Your task to perform on an android device: change the clock display to analog Image 0: 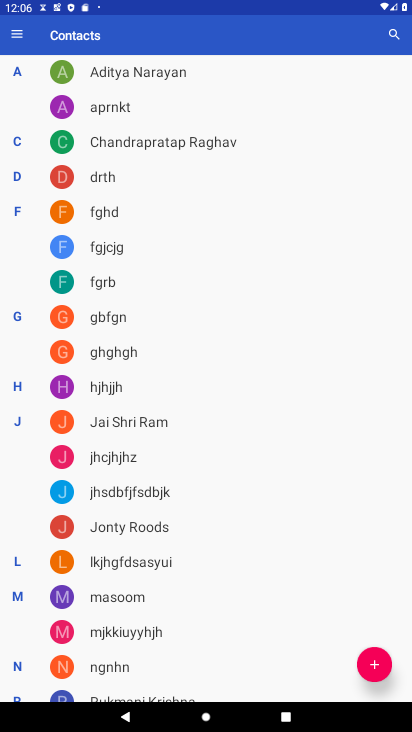
Step 0: press back button
Your task to perform on an android device: change the clock display to analog Image 1: 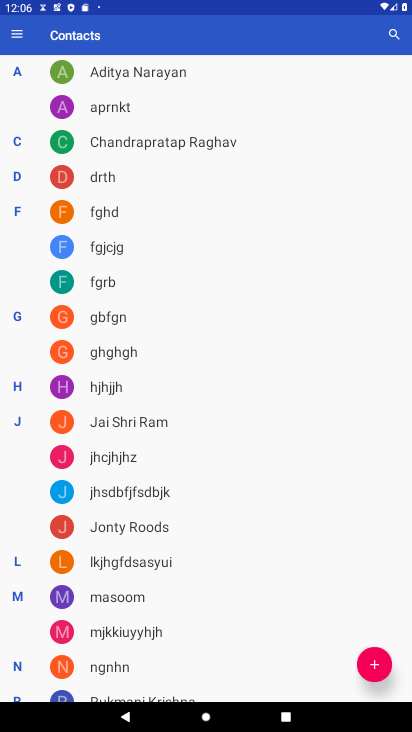
Step 1: press back button
Your task to perform on an android device: change the clock display to analog Image 2: 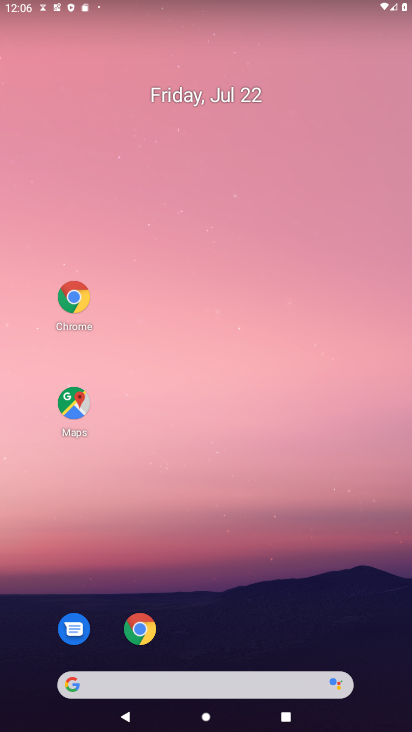
Step 2: drag from (245, 441) to (189, 140)
Your task to perform on an android device: change the clock display to analog Image 3: 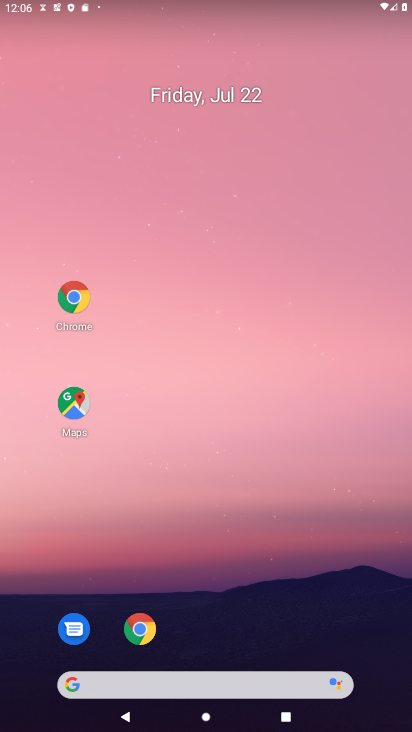
Step 3: drag from (266, 565) to (185, 109)
Your task to perform on an android device: change the clock display to analog Image 4: 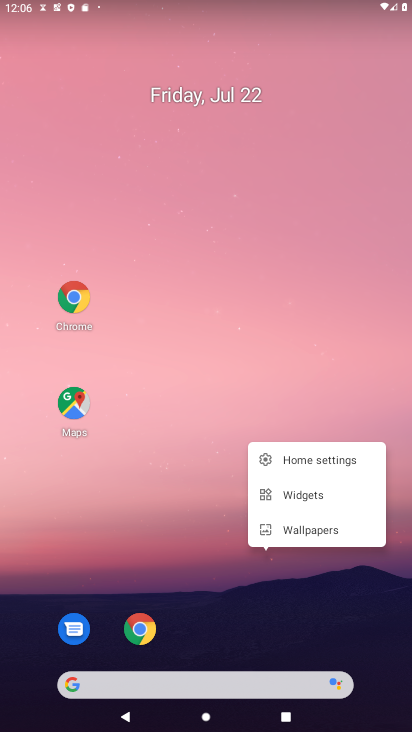
Step 4: click (202, 137)
Your task to perform on an android device: change the clock display to analog Image 5: 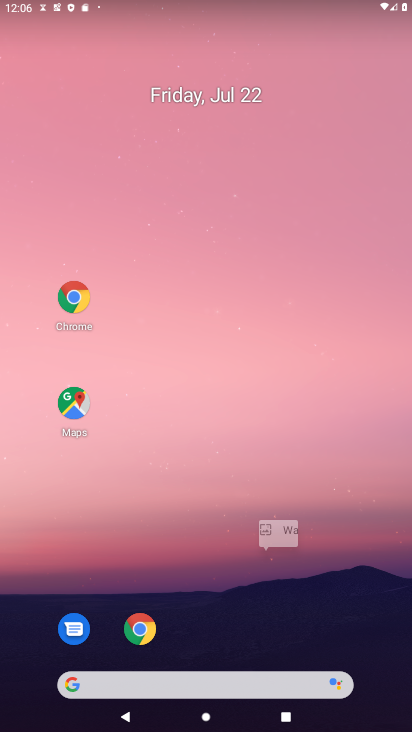
Step 5: drag from (200, 131) to (219, 448)
Your task to perform on an android device: change the clock display to analog Image 6: 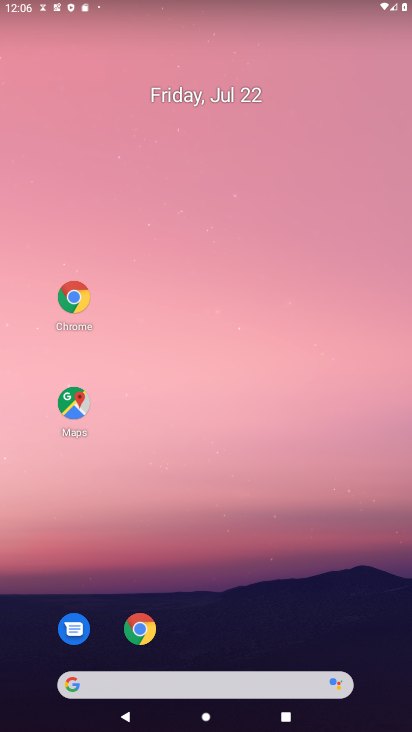
Step 6: drag from (232, 557) to (156, 108)
Your task to perform on an android device: change the clock display to analog Image 7: 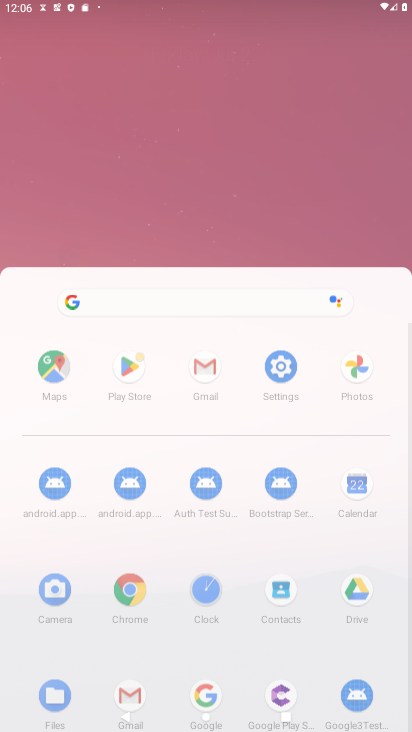
Step 7: drag from (181, 521) to (181, 170)
Your task to perform on an android device: change the clock display to analog Image 8: 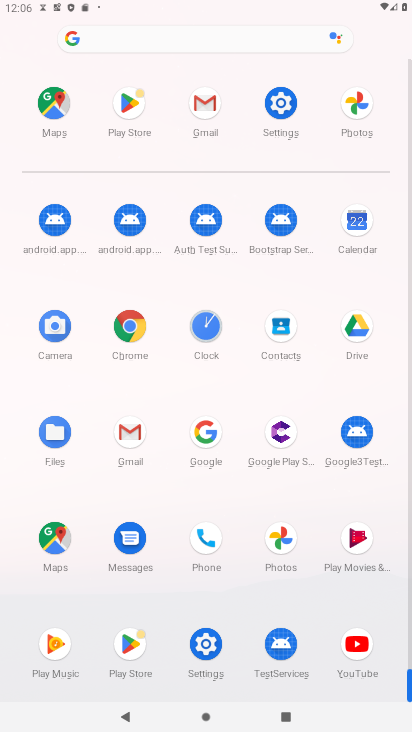
Step 8: drag from (219, 506) to (219, 142)
Your task to perform on an android device: change the clock display to analog Image 9: 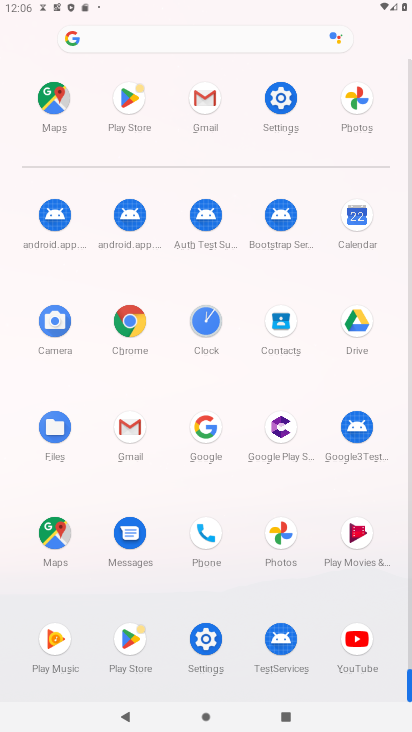
Step 9: click (280, 92)
Your task to perform on an android device: change the clock display to analog Image 10: 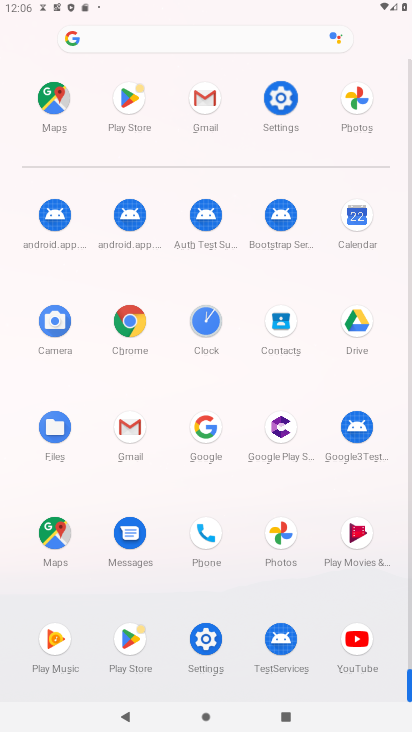
Step 10: click (280, 93)
Your task to perform on an android device: change the clock display to analog Image 11: 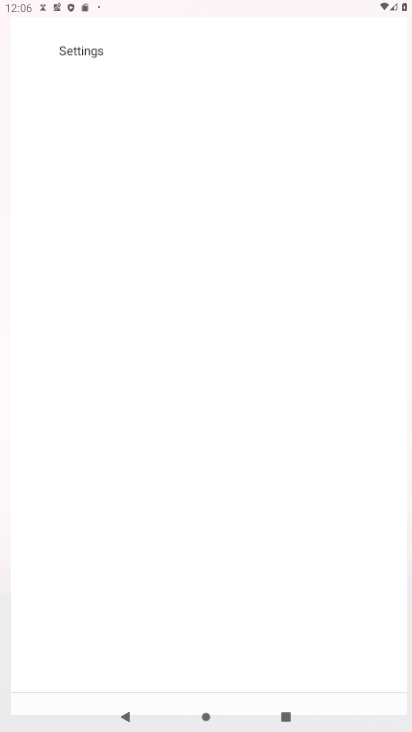
Step 11: click (281, 94)
Your task to perform on an android device: change the clock display to analog Image 12: 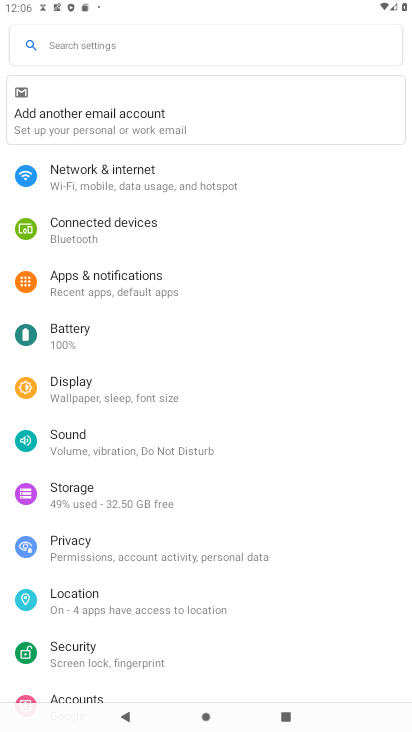
Step 12: press back button
Your task to perform on an android device: change the clock display to analog Image 13: 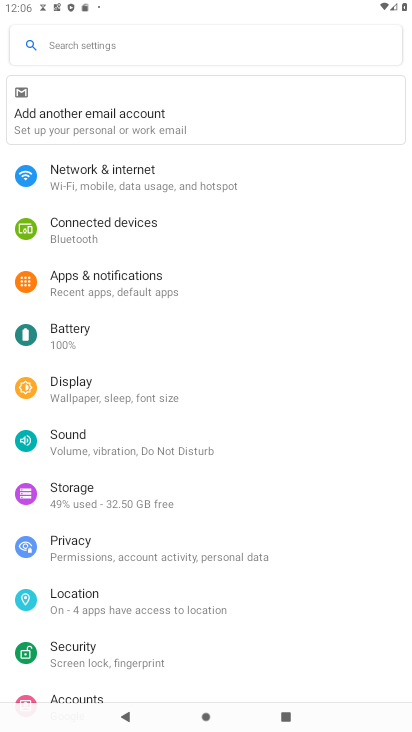
Step 13: press back button
Your task to perform on an android device: change the clock display to analog Image 14: 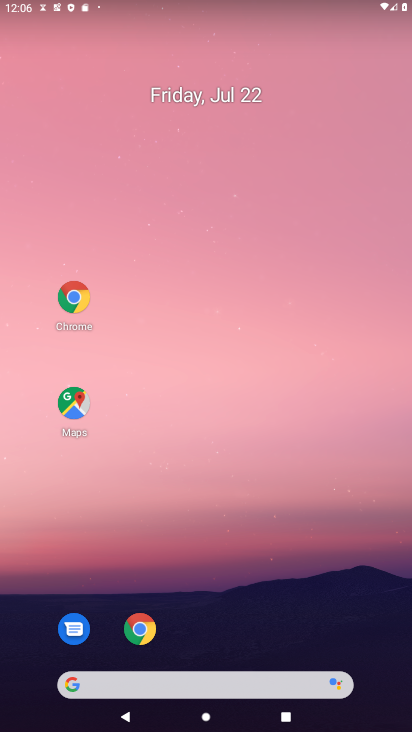
Step 14: drag from (223, 620) to (142, 169)
Your task to perform on an android device: change the clock display to analog Image 15: 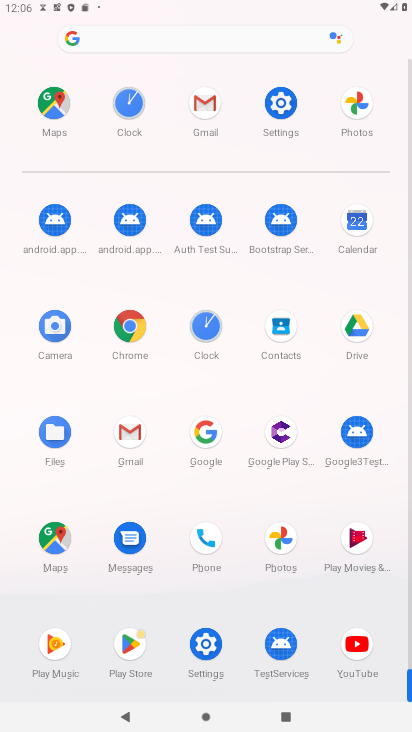
Step 15: click (209, 329)
Your task to perform on an android device: change the clock display to analog Image 16: 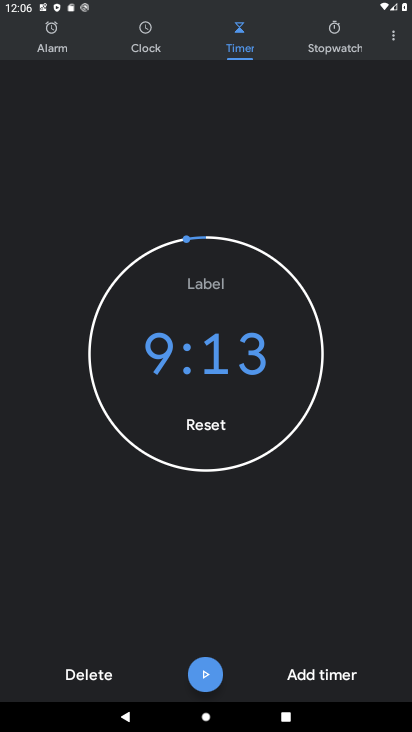
Step 16: click (204, 326)
Your task to perform on an android device: change the clock display to analog Image 17: 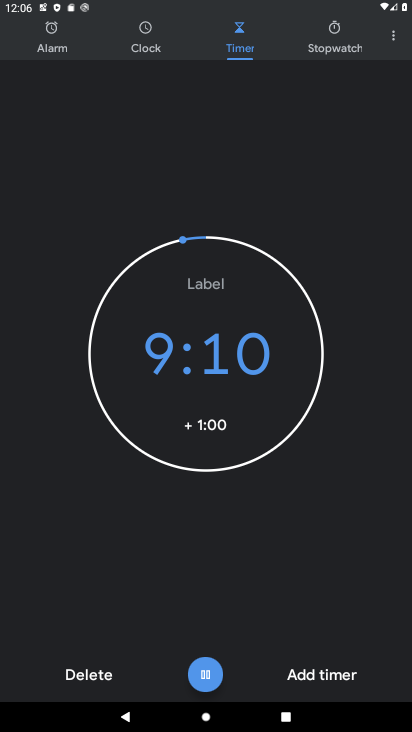
Step 17: click (392, 37)
Your task to perform on an android device: change the clock display to analog Image 18: 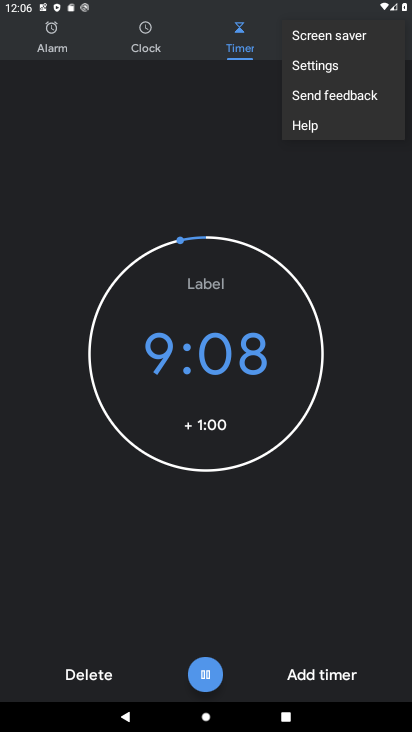
Step 18: click (331, 71)
Your task to perform on an android device: change the clock display to analog Image 19: 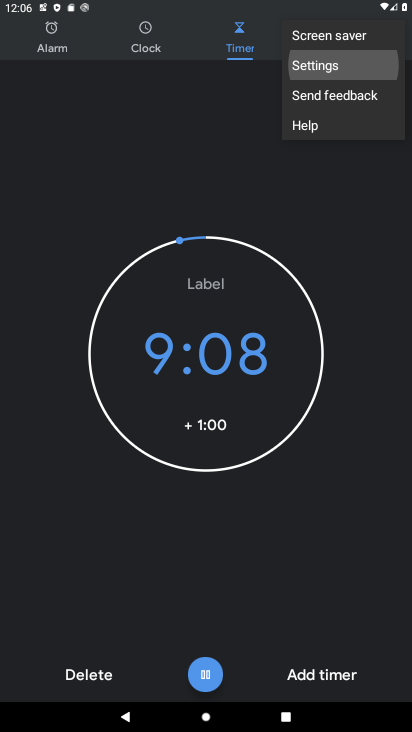
Step 19: click (330, 72)
Your task to perform on an android device: change the clock display to analog Image 20: 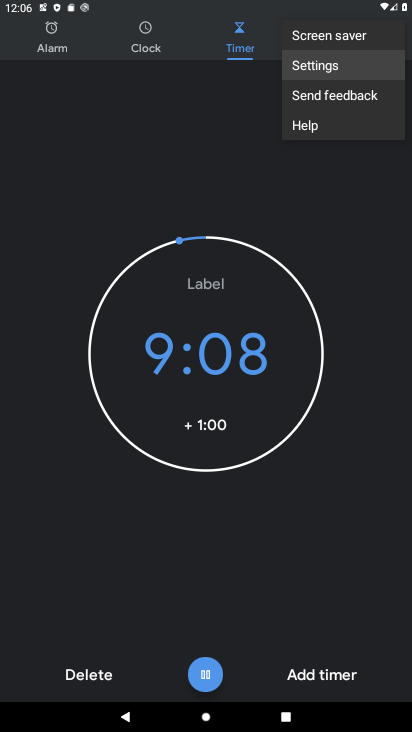
Step 20: click (330, 72)
Your task to perform on an android device: change the clock display to analog Image 21: 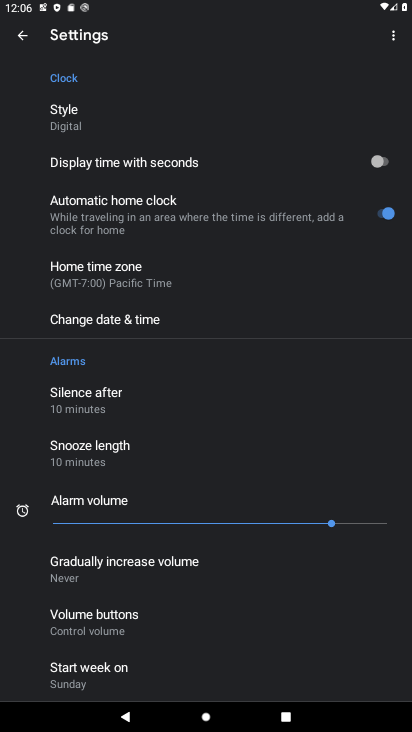
Step 21: click (96, 114)
Your task to perform on an android device: change the clock display to analog Image 22: 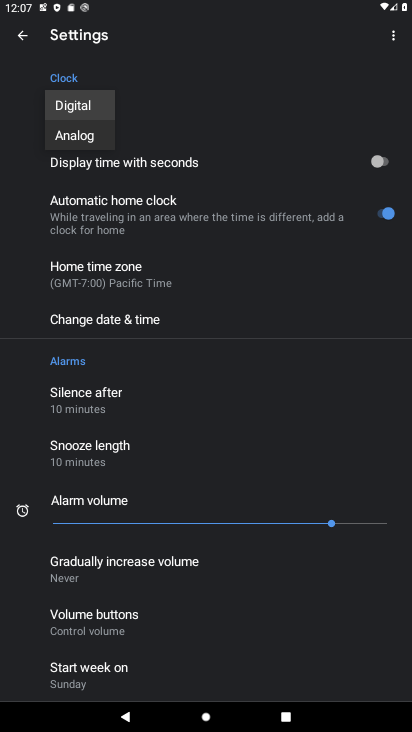
Step 22: click (82, 137)
Your task to perform on an android device: change the clock display to analog Image 23: 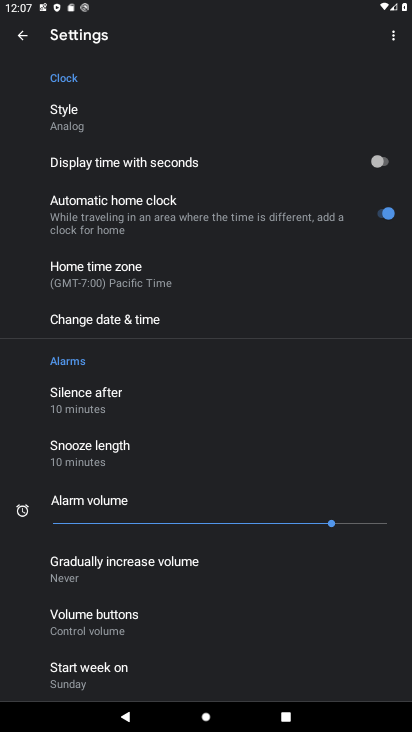
Step 23: task complete